Your task to perform on an android device: toggle data saver in the chrome app Image 0: 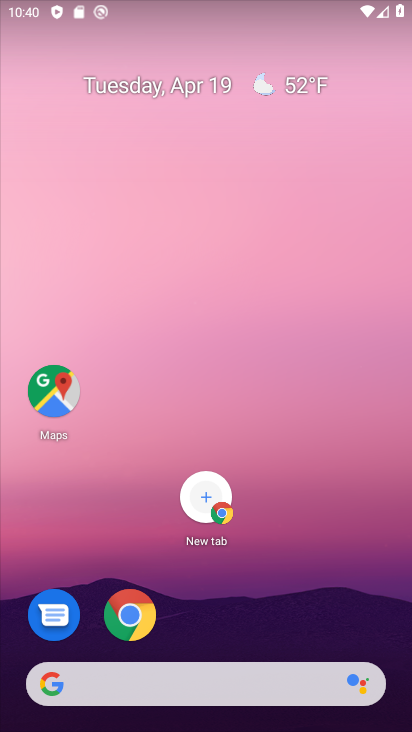
Step 0: click (130, 622)
Your task to perform on an android device: toggle data saver in the chrome app Image 1: 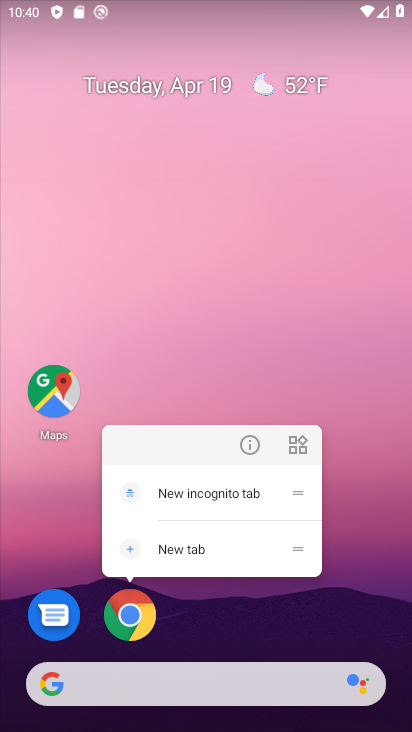
Step 1: click (128, 615)
Your task to perform on an android device: toggle data saver in the chrome app Image 2: 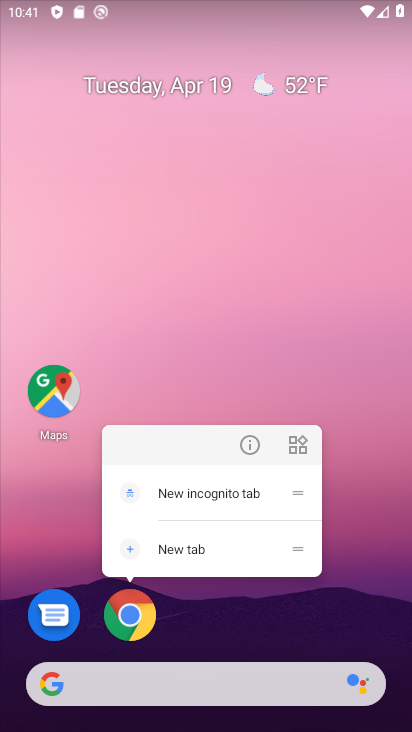
Step 2: click (128, 615)
Your task to perform on an android device: toggle data saver in the chrome app Image 3: 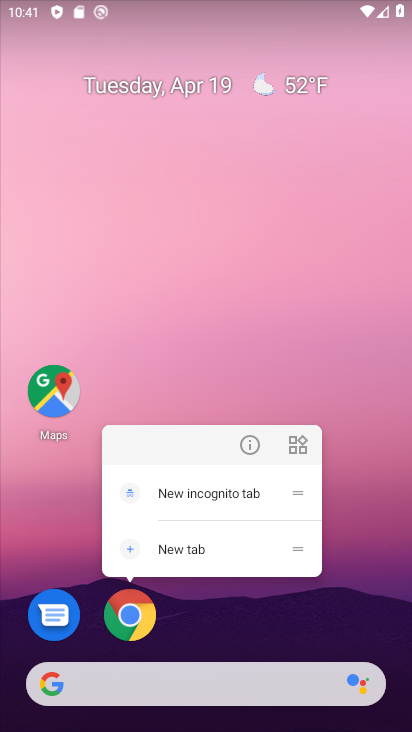
Step 3: click (128, 615)
Your task to perform on an android device: toggle data saver in the chrome app Image 4: 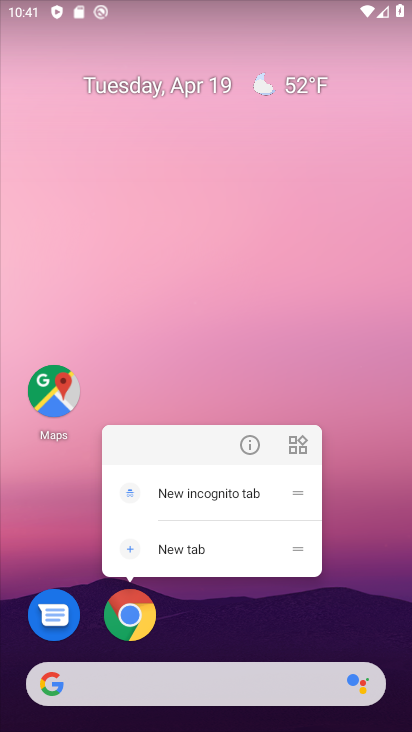
Step 4: click (128, 615)
Your task to perform on an android device: toggle data saver in the chrome app Image 5: 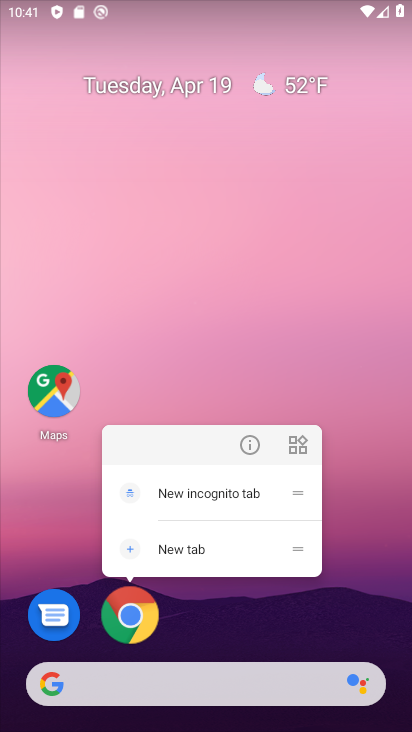
Step 5: click (128, 615)
Your task to perform on an android device: toggle data saver in the chrome app Image 6: 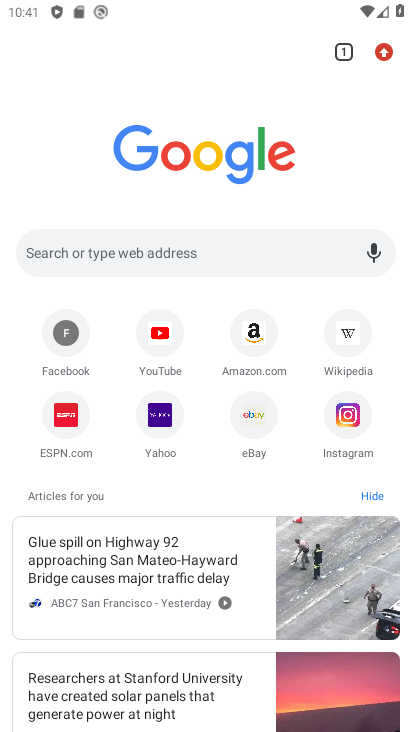
Step 6: click (388, 50)
Your task to perform on an android device: toggle data saver in the chrome app Image 7: 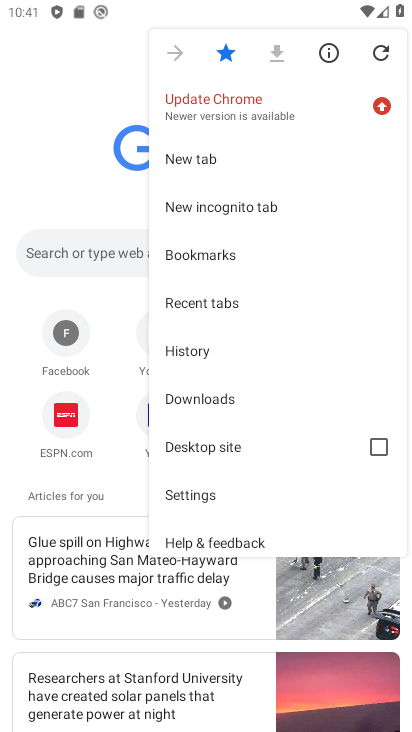
Step 7: click (189, 490)
Your task to perform on an android device: toggle data saver in the chrome app Image 8: 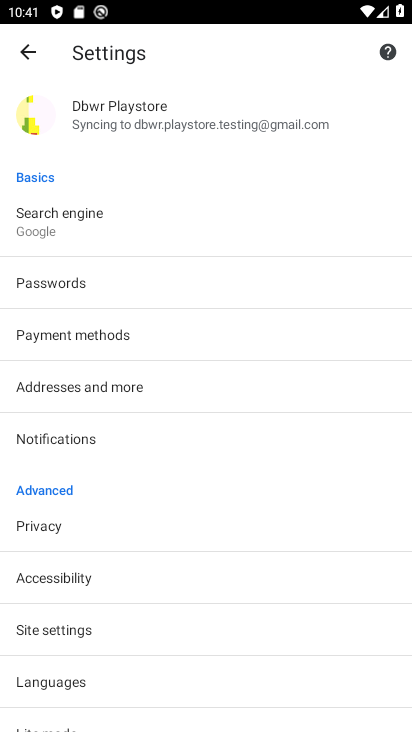
Step 8: drag from (99, 646) to (217, 172)
Your task to perform on an android device: toggle data saver in the chrome app Image 9: 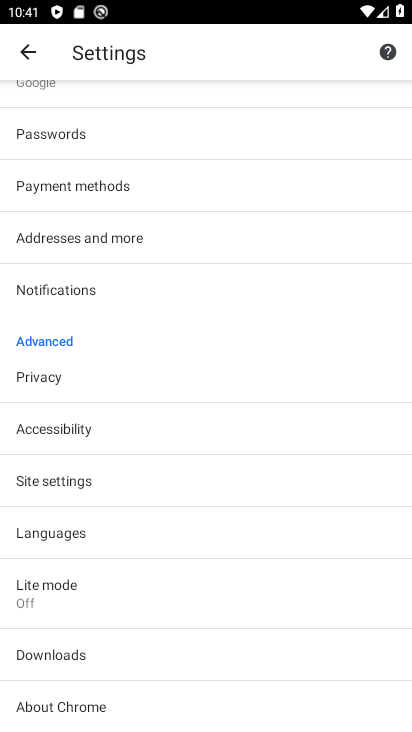
Step 9: click (129, 594)
Your task to perform on an android device: toggle data saver in the chrome app Image 10: 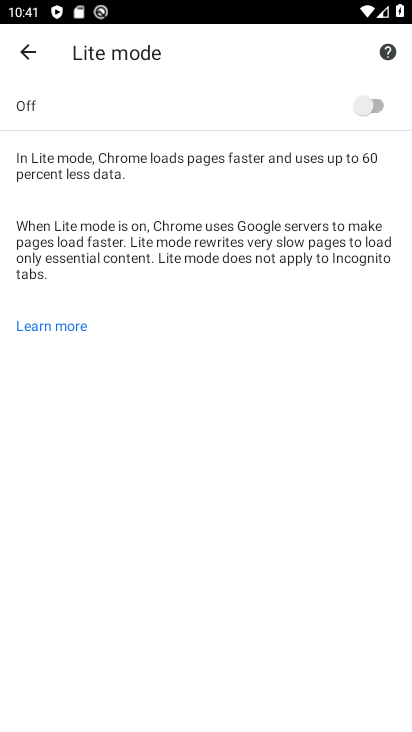
Step 10: click (378, 109)
Your task to perform on an android device: toggle data saver in the chrome app Image 11: 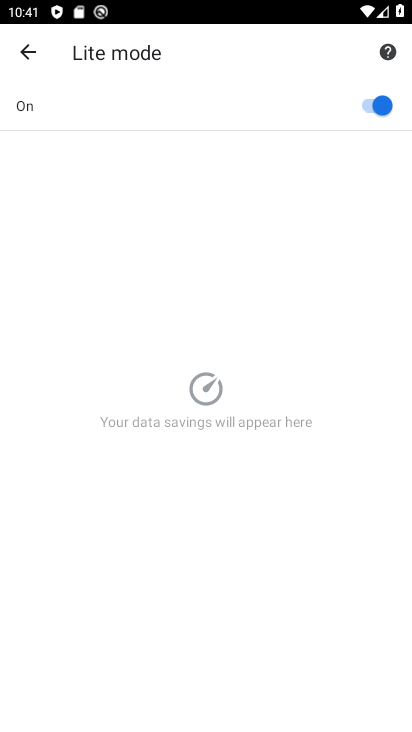
Step 11: click (378, 109)
Your task to perform on an android device: toggle data saver in the chrome app Image 12: 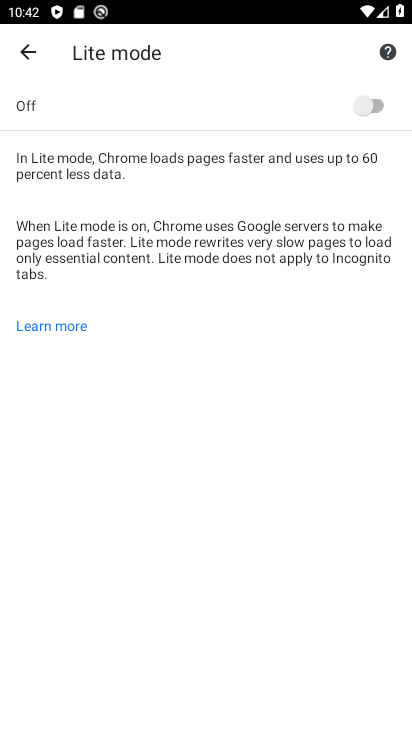
Step 12: task complete